Your task to perform on an android device: Go to Amazon Image 0: 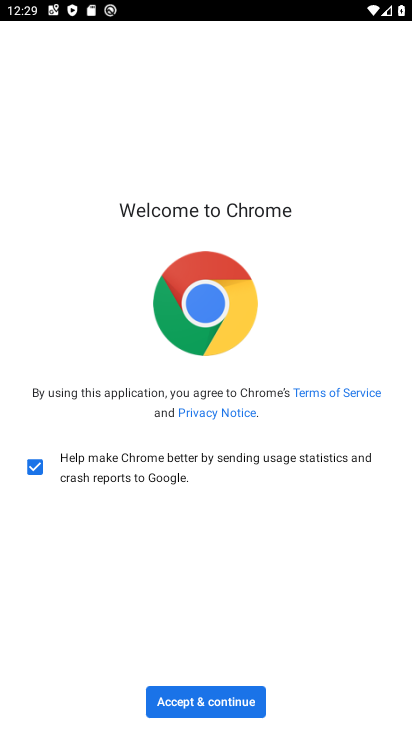
Step 0: press home button
Your task to perform on an android device: Go to Amazon Image 1: 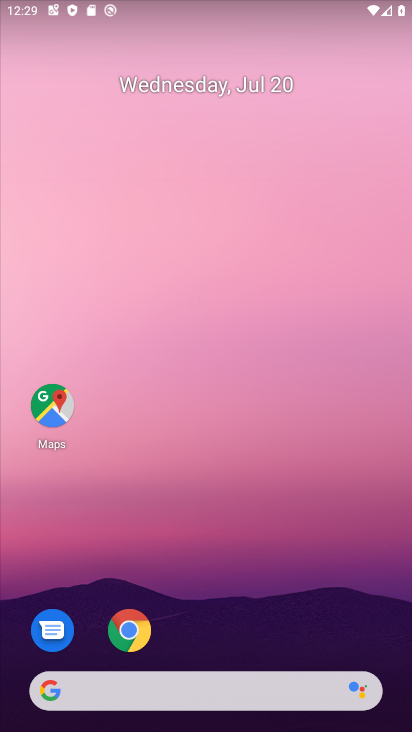
Step 1: click (131, 636)
Your task to perform on an android device: Go to Amazon Image 2: 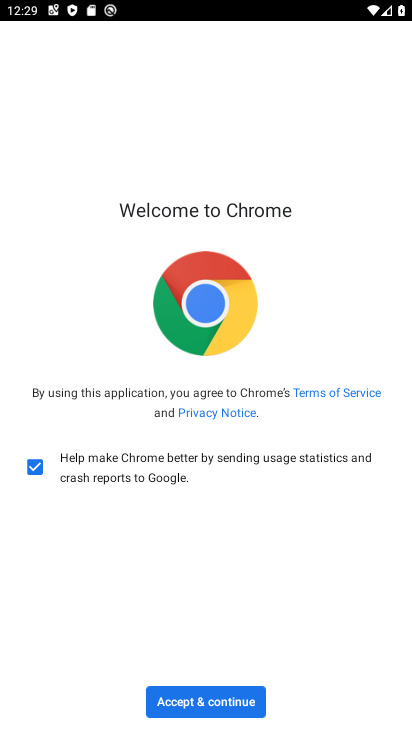
Step 2: click (225, 706)
Your task to perform on an android device: Go to Amazon Image 3: 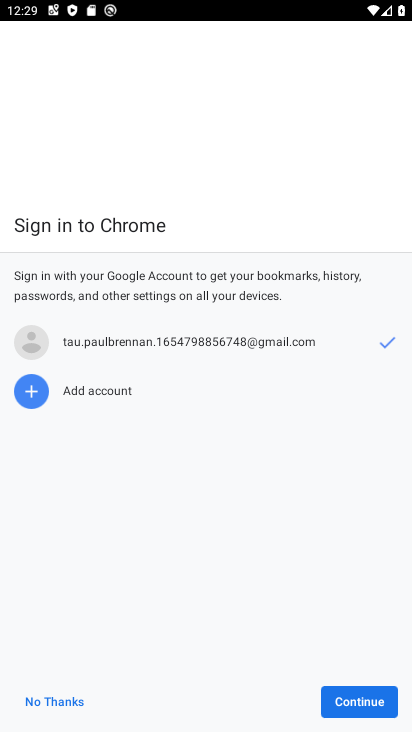
Step 3: click (345, 701)
Your task to perform on an android device: Go to Amazon Image 4: 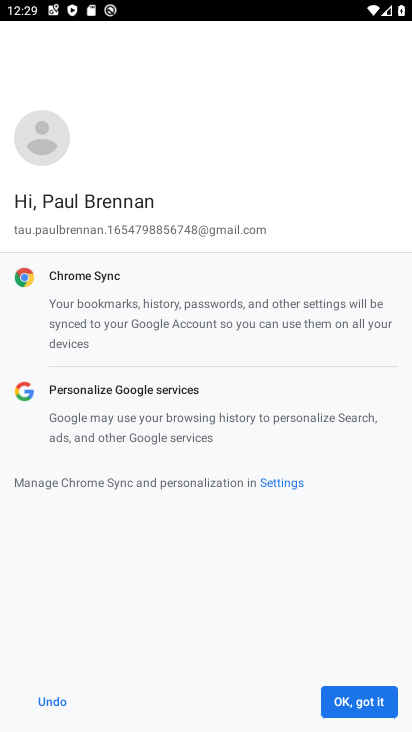
Step 4: click (345, 701)
Your task to perform on an android device: Go to Amazon Image 5: 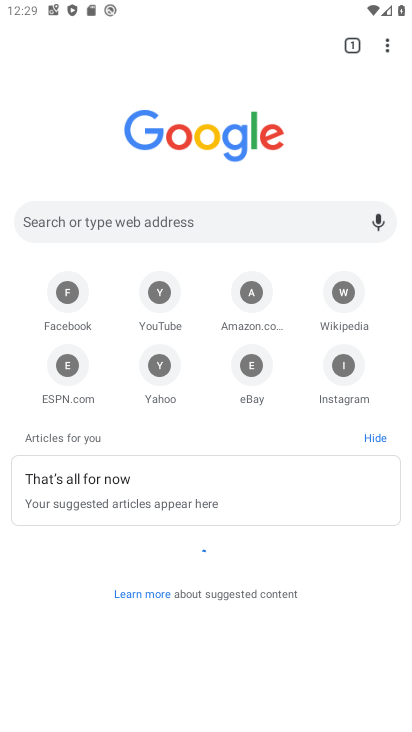
Step 5: click (256, 293)
Your task to perform on an android device: Go to Amazon Image 6: 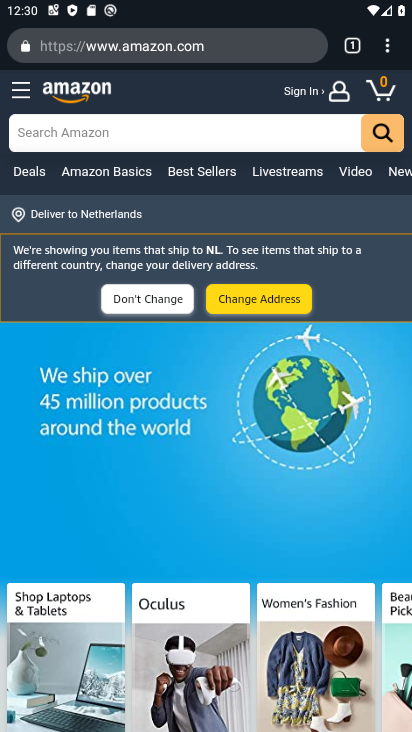
Step 6: task complete